Your task to perform on an android device: Open Youtube and go to the subscriptions tab Image 0: 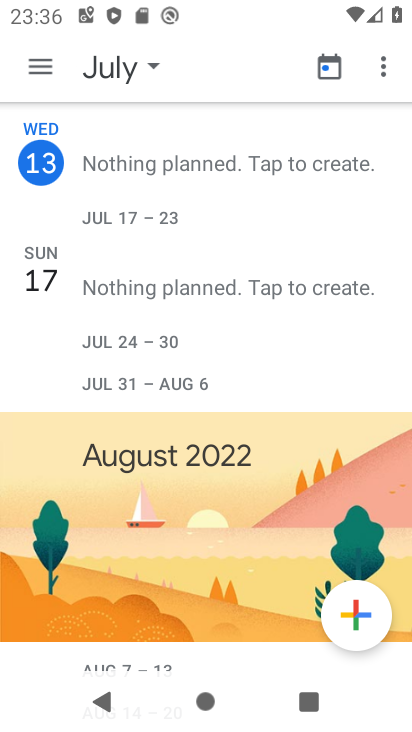
Step 0: press home button
Your task to perform on an android device: Open Youtube and go to the subscriptions tab Image 1: 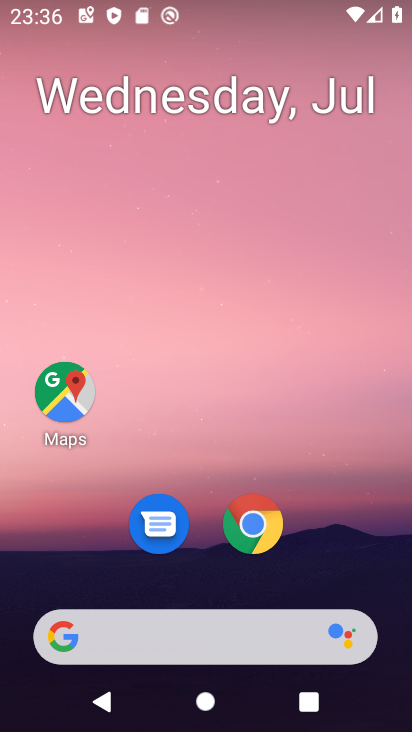
Step 1: drag from (209, 630) to (335, 100)
Your task to perform on an android device: Open Youtube and go to the subscriptions tab Image 2: 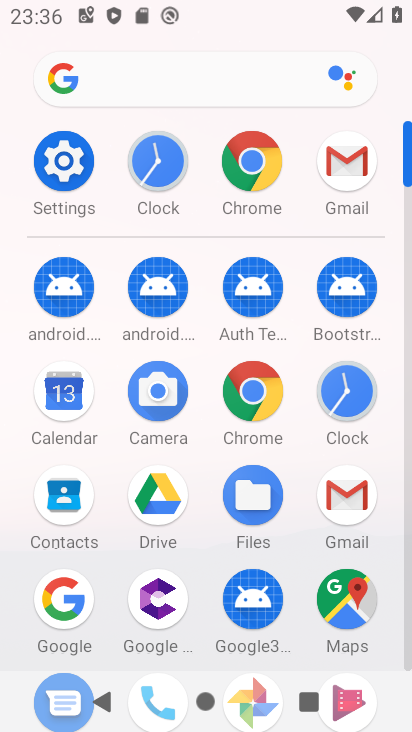
Step 2: drag from (200, 620) to (390, 84)
Your task to perform on an android device: Open Youtube and go to the subscriptions tab Image 3: 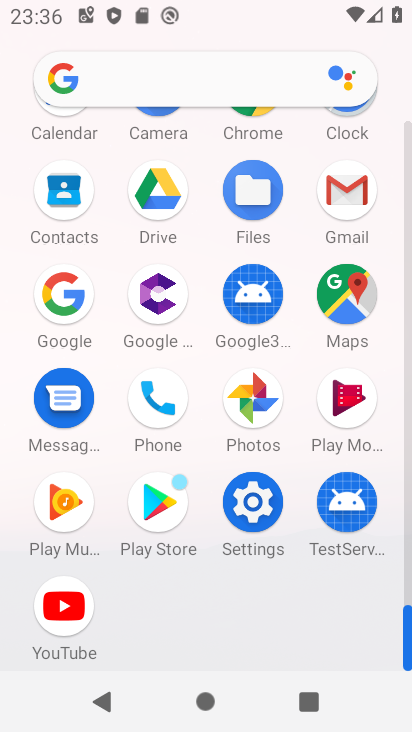
Step 3: drag from (211, 646) to (322, 119)
Your task to perform on an android device: Open Youtube and go to the subscriptions tab Image 4: 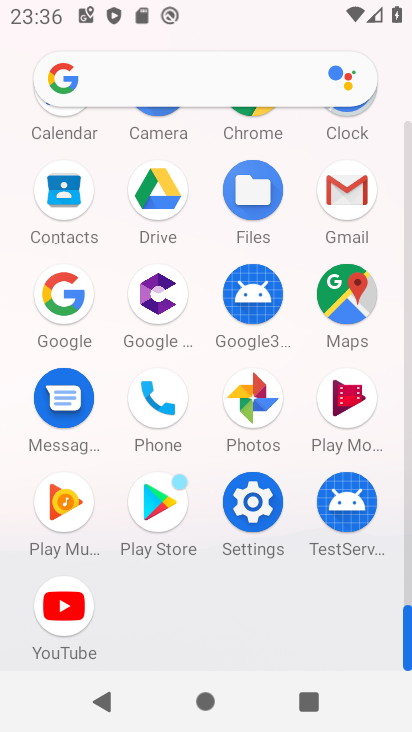
Step 4: click (72, 614)
Your task to perform on an android device: Open Youtube and go to the subscriptions tab Image 5: 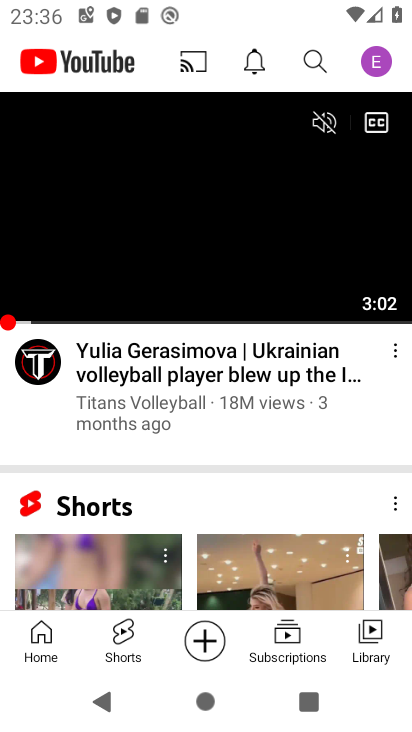
Step 5: click (294, 647)
Your task to perform on an android device: Open Youtube and go to the subscriptions tab Image 6: 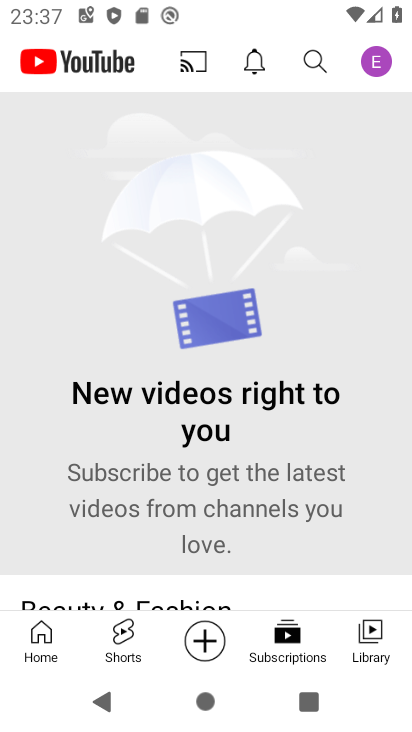
Step 6: task complete